Your task to perform on an android device: Open Yahoo.com Image 0: 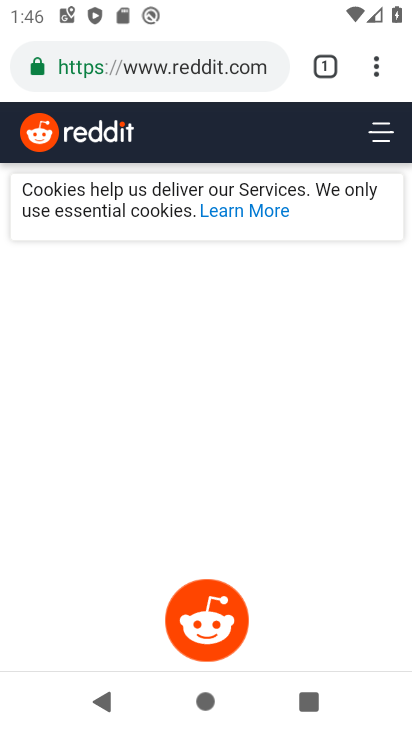
Step 0: press home button
Your task to perform on an android device: Open Yahoo.com Image 1: 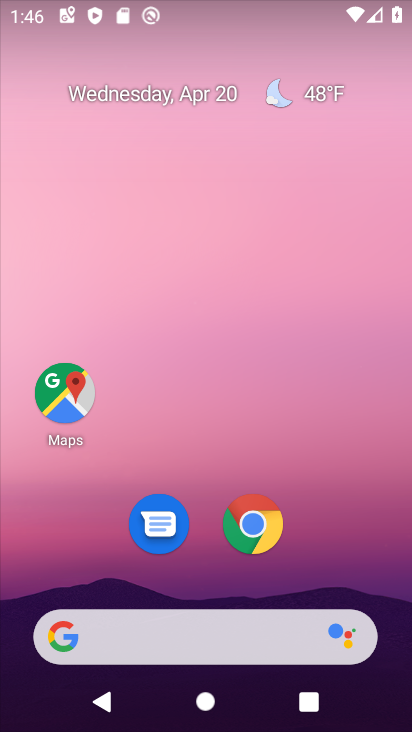
Step 1: click (57, 636)
Your task to perform on an android device: Open Yahoo.com Image 2: 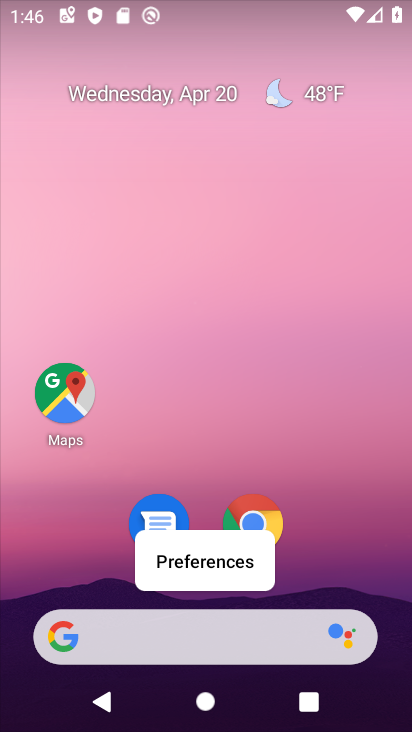
Step 2: click (57, 635)
Your task to perform on an android device: Open Yahoo.com Image 3: 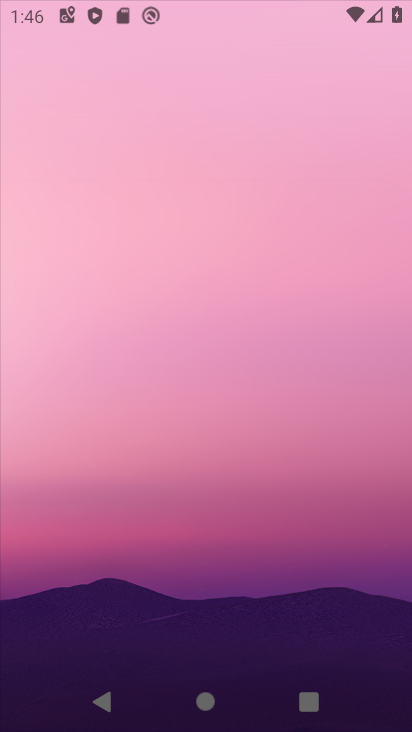
Step 3: click (57, 635)
Your task to perform on an android device: Open Yahoo.com Image 4: 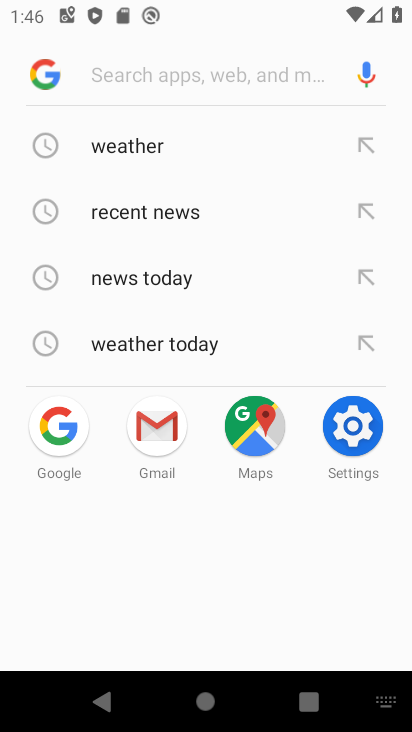
Step 4: click (209, 68)
Your task to perform on an android device: Open Yahoo.com Image 5: 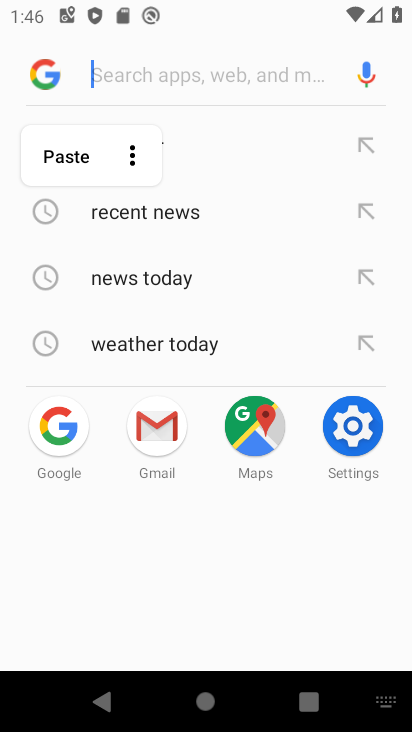
Step 5: type "yahoo.com"
Your task to perform on an android device: Open Yahoo.com Image 6: 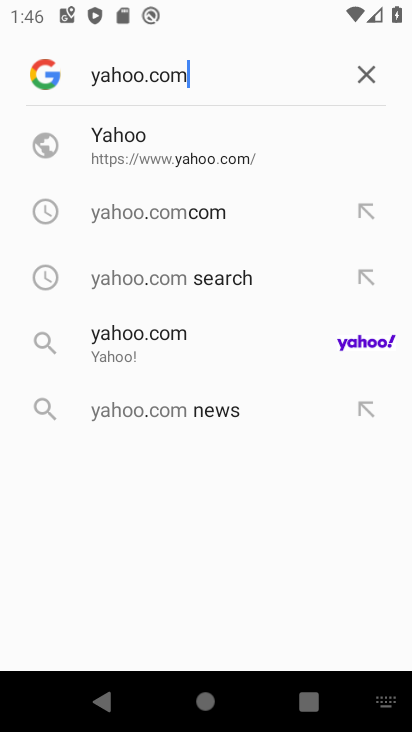
Step 6: click (229, 148)
Your task to perform on an android device: Open Yahoo.com Image 7: 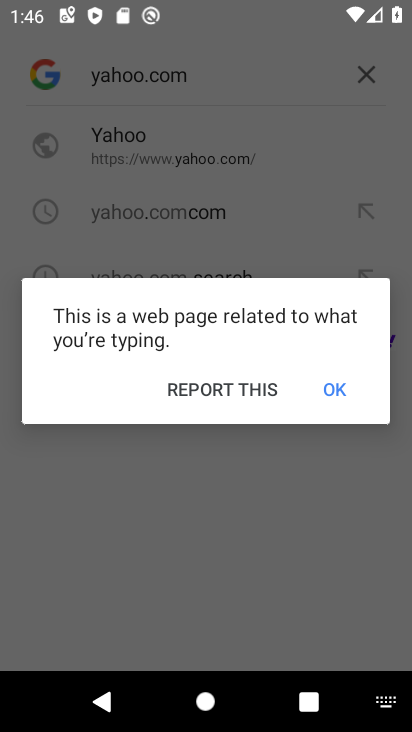
Step 7: click (331, 385)
Your task to perform on an android device: Open Yahoo.com Image 8: 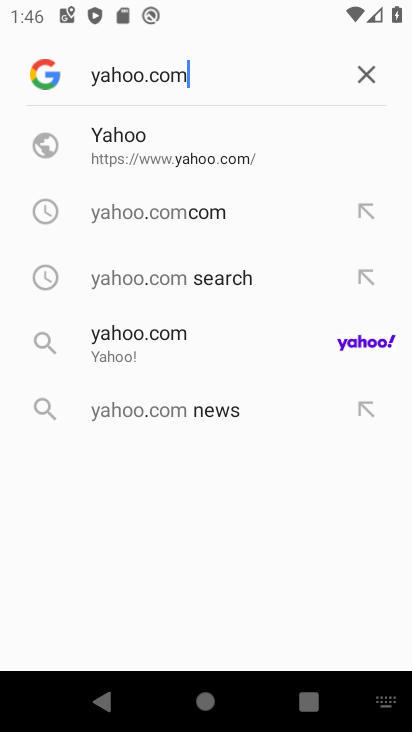
Step 8: click (163, 330)
Your task to perform on an android device: Open Yahoo.com Image 9: 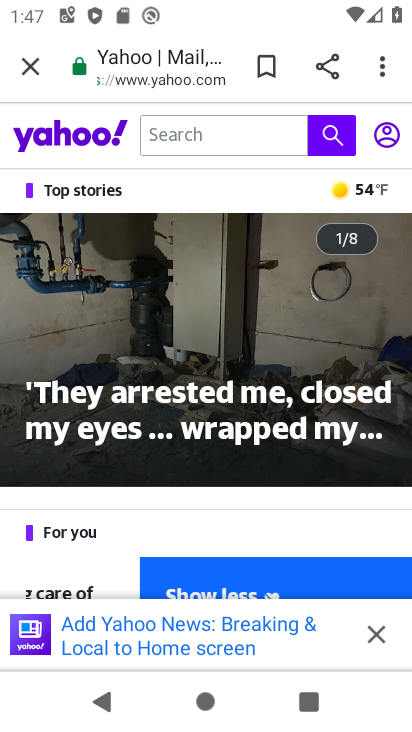
Step 9: task complete